Your task to perform on an android device: Go to Maps Image 0: 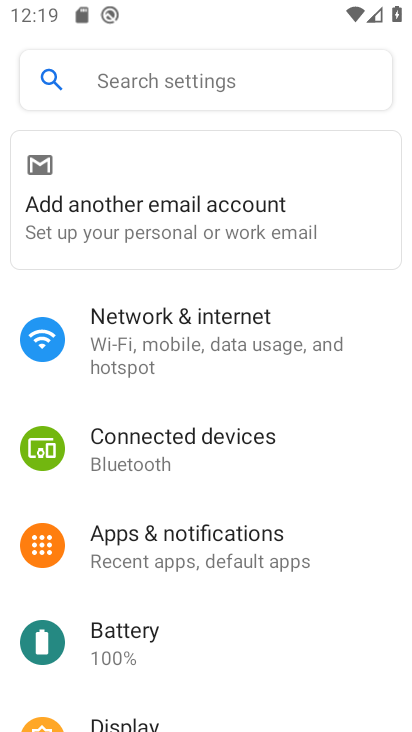
Step 0: press home button
Your task to perform on an android device: Go to Maps Image 1: 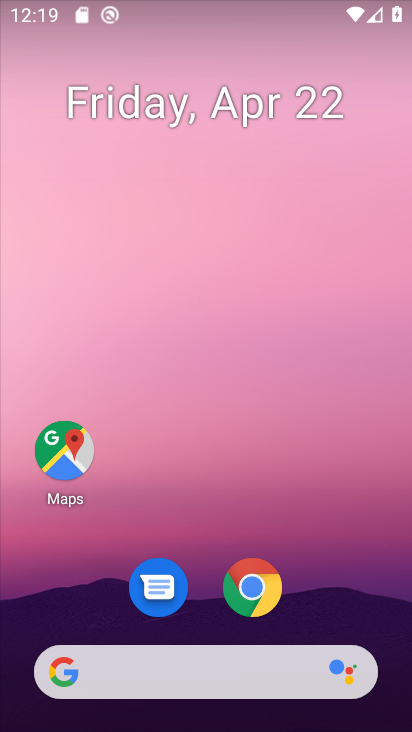
Step 1: drag from (179, 669) to (305, 58)
Your task to perform on an android device: Go to Maps Image 2: 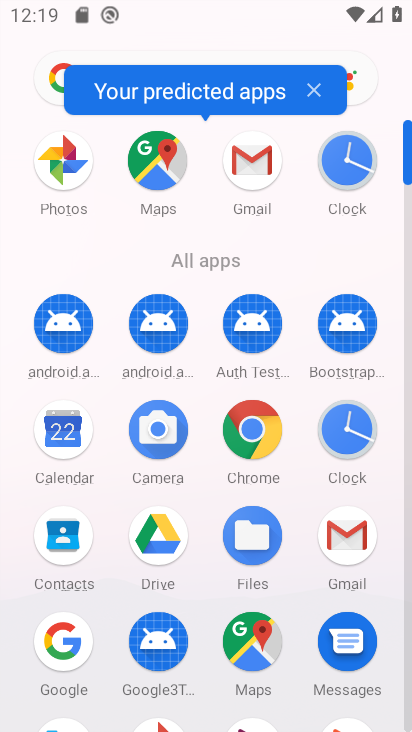
Step 2: click (244, 648)
Your task to perform on an android device: Go to Maps Image 3: 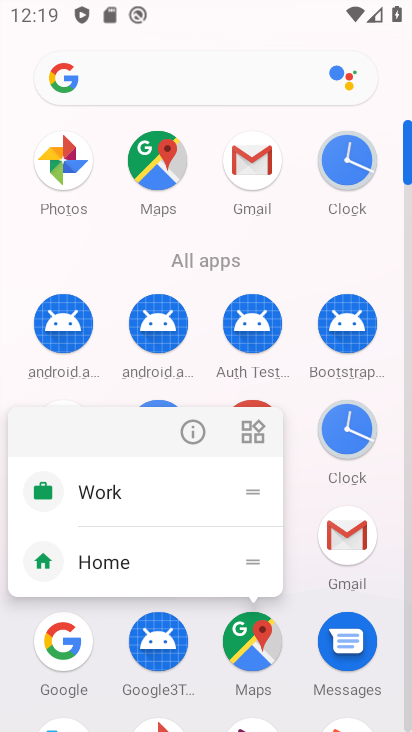
Step 3: click (152, 165)
Your task to perform on an android device: Go to Maps Image 4: 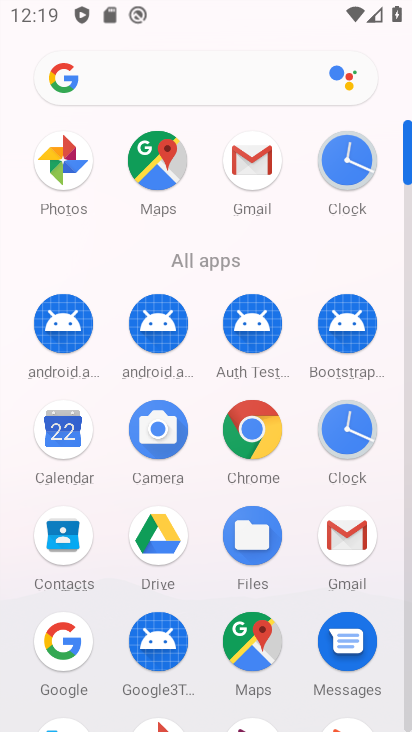
Step 4: click (158, 168)
Your task to perform on an android device: Go to Maps Image 5: 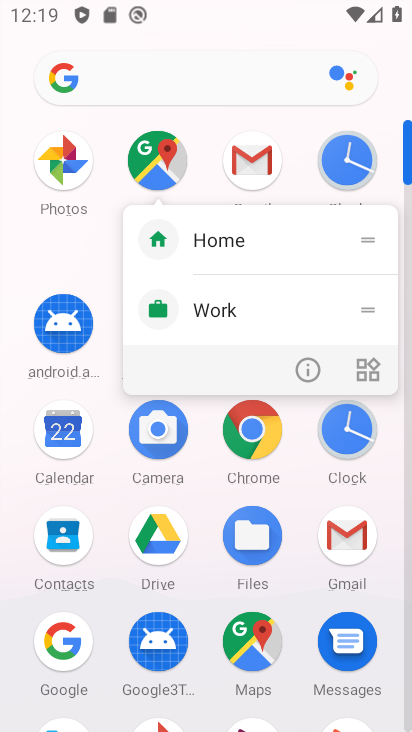
Step 5: click (158, 168)
Your task to perform on an android device: Go to Maps Image 6: 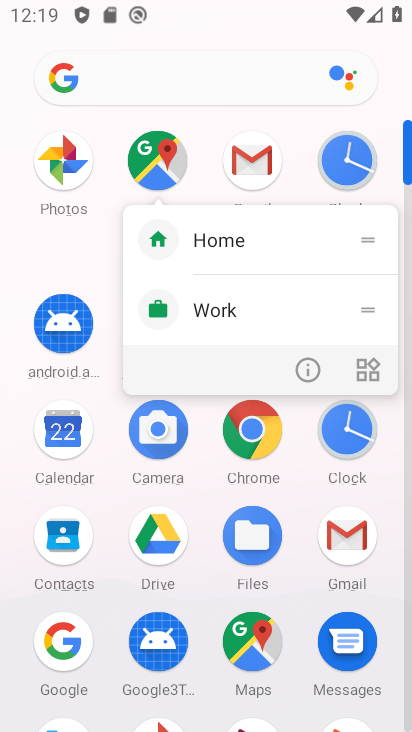
Step 6: click (154, 171)
Your task to perform on an android device: Go to Maps Image 7: 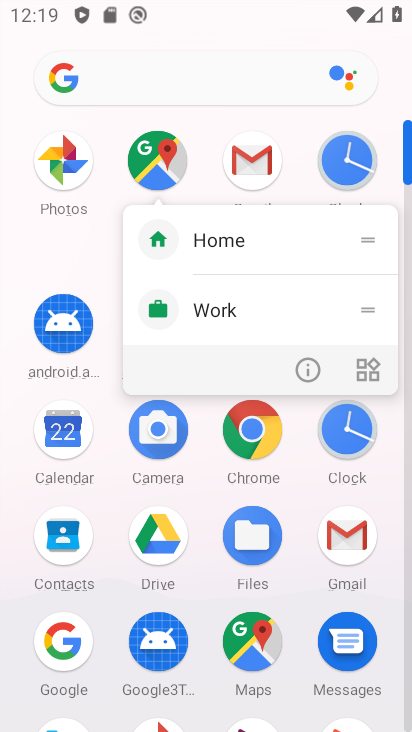
Step 7: click (157, 163)
Your task to perform on an android device: Go to Maps Image 8: 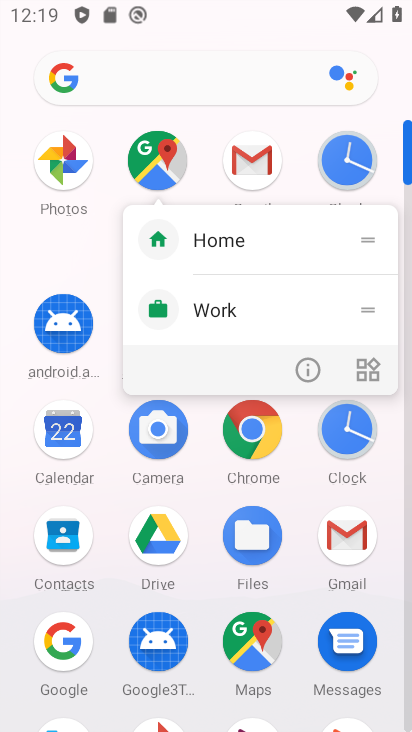
Step 8: click (161, 173)
Your task to perform on an android device: Go to Maps Image 9: 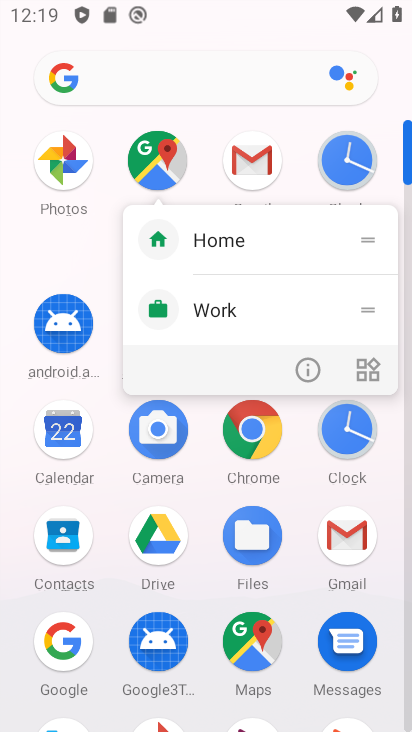
Step 9: click (153, 165)
Your task to perform on an android device: Go to Maps Image 10: 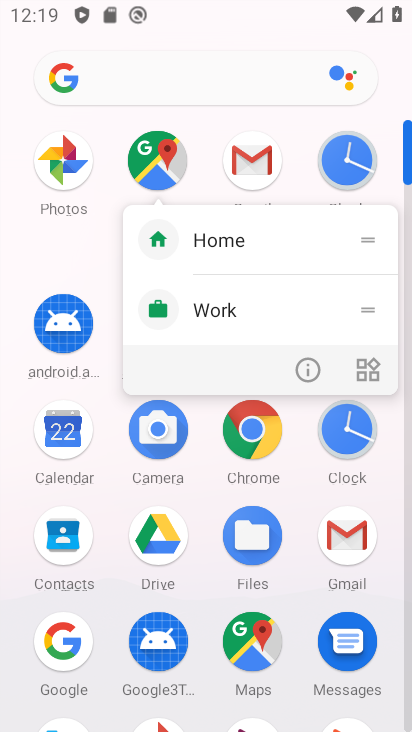
Step 10: click (251, 654)
Your task to perform on an android device: Go to Maps Image 11: 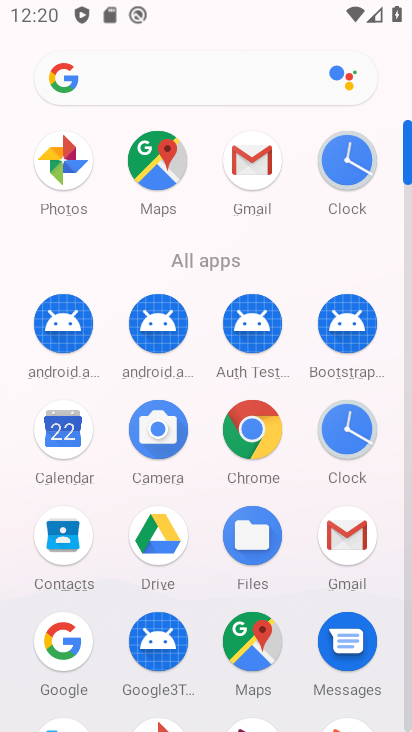
Step 11: click (252, 647)
Your task to perform on an android device: Go to Maps Image 12: 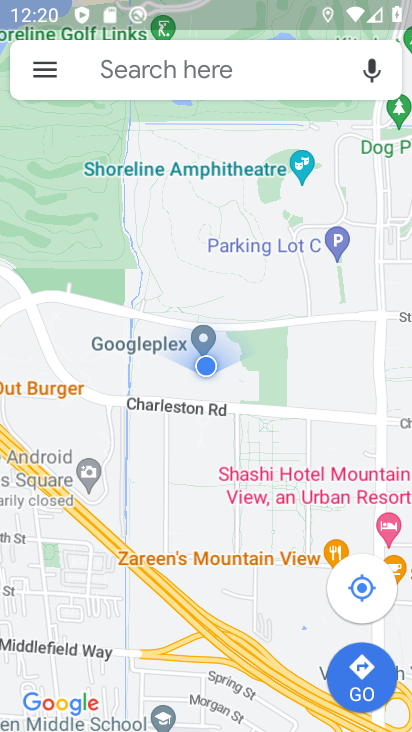
Step 12: task complete